Your task to perform on an android device: Do I have any events today? Image 0: 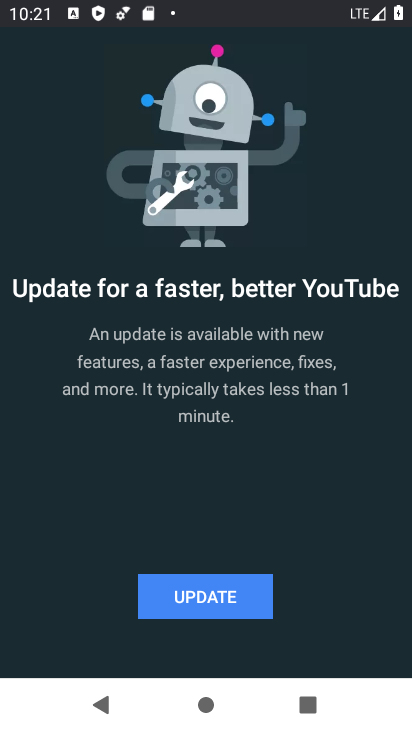
Step 0: press home button
Your task to perform on an android device: Do I have any events today? Image 1: 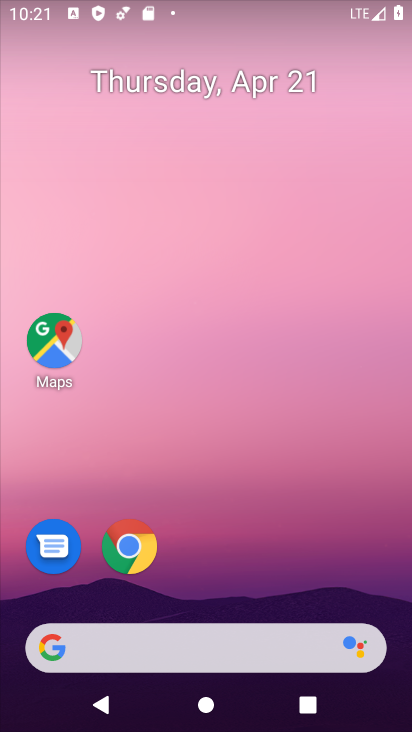
Step 1: drag from (299, 603) to (172, 135)
Your task to perform on an android device: Do I have any events today? Image 2: 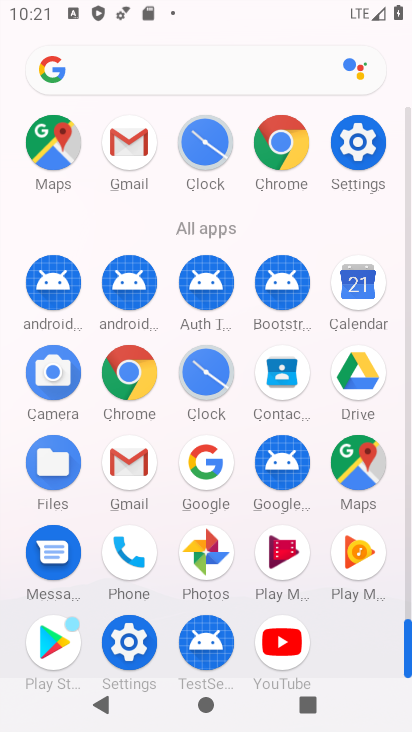
Step 2: click (360, 283)
Your task to perform on an android device: Do I have any events today? Image 3: 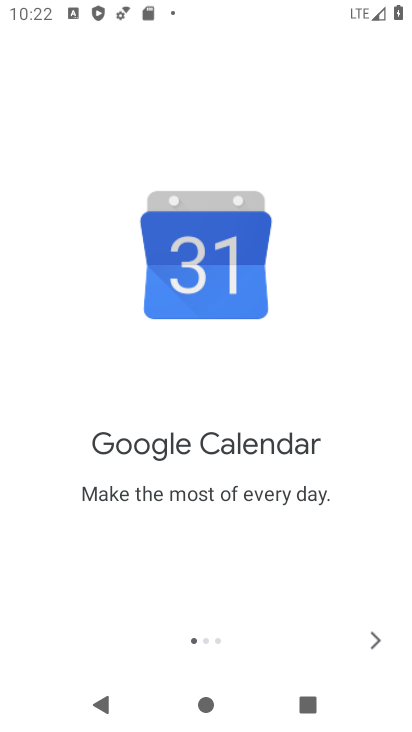
Step 3: click (373, 638)
Your task to perform on an android device: Do I have any events today? Image 4: 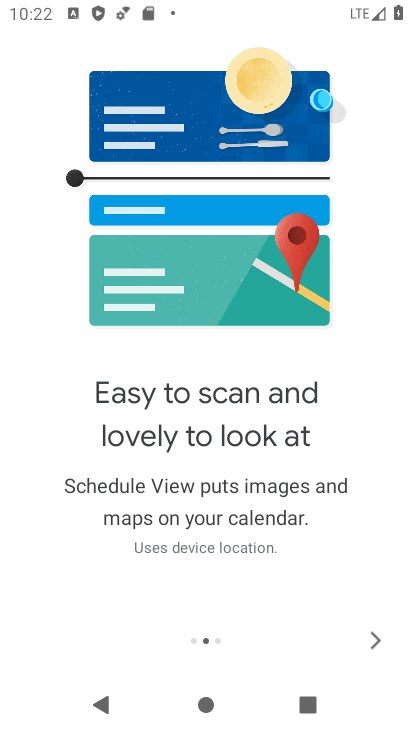
Step 4: click (373, 638)
Your task to perform on an android device: Do I have any events today? Image 5: 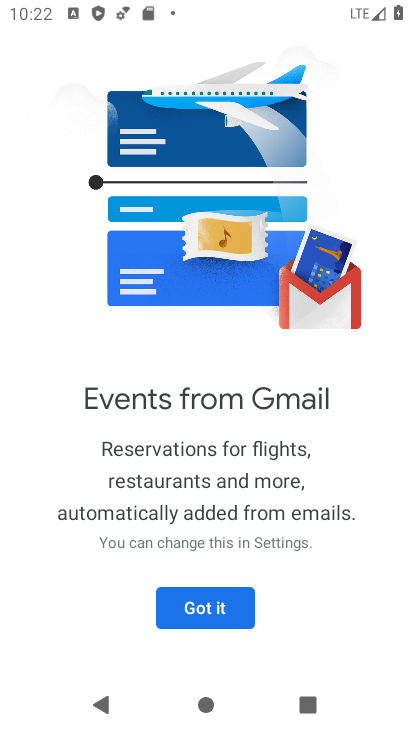
Step 5: click (196, 603)
Your task to perform on an android device: Do I have any events today? Image 6: 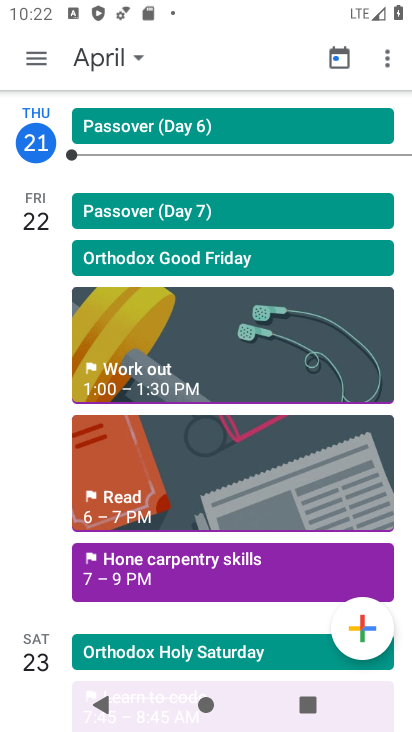
Step 6: click (35, 57)
Your task to perform on an android device: Do I have any events today? Image 7: 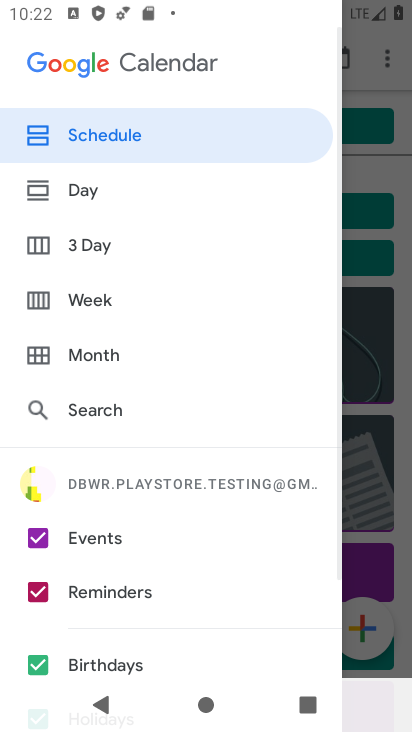
Step 7: click (84, 189)
Your task to perform on an android device: Do I have any events today? Image 8: 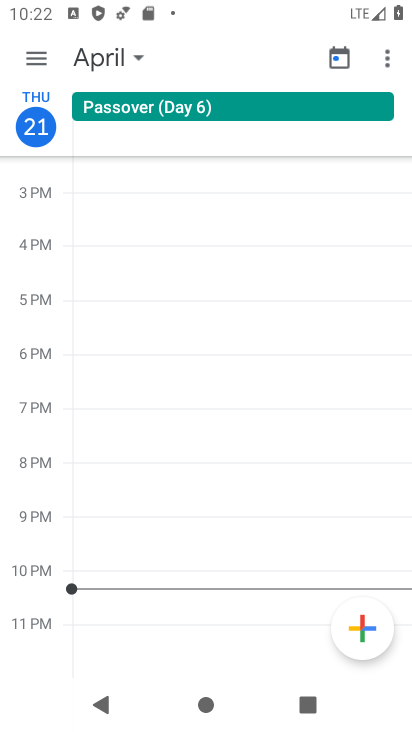
Step 8: task complete